Your task to perform on an android device: toggle notification dots Image 0: 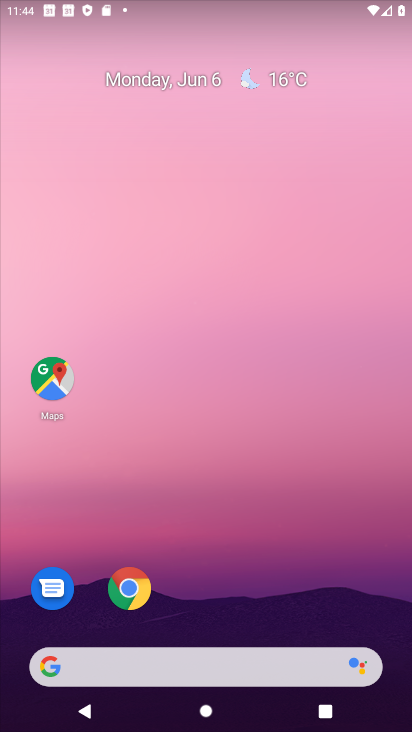
Step 0: drag from (262, 559) to (196, 0)
Your task to perform on an android device: toggle notification dots Image 1: 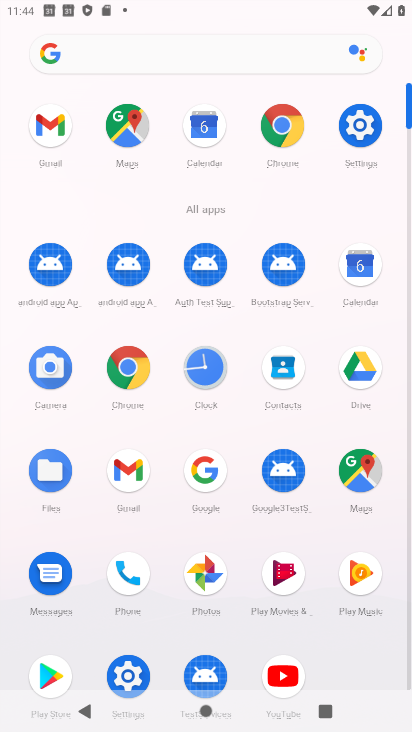
Step 1: click (361, 126)
Your task to perform on an android device: toggle notification dots Image 2: 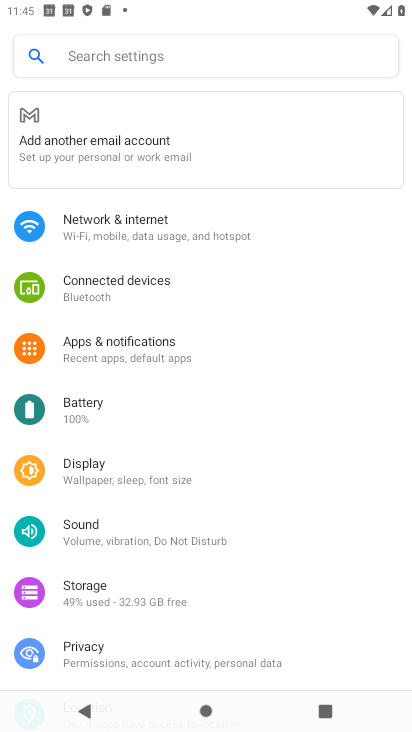
Step 2: click (146, 347)
Your task to perform on an android device: toggle notification dots Image 3: 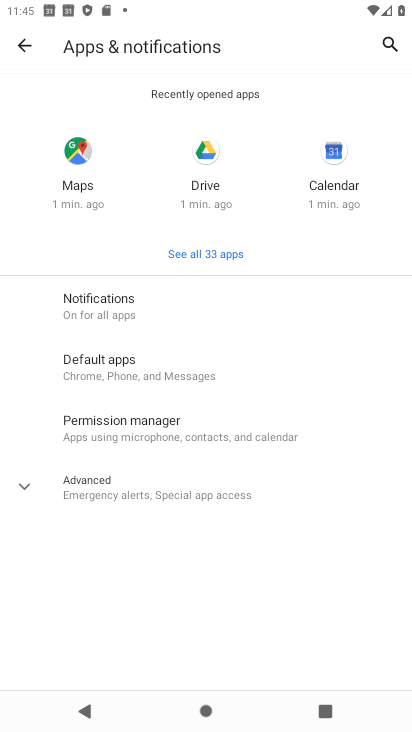
Step 3: click (107, 306)
Your task to perform on an android device: toggle notification dots Image 4: 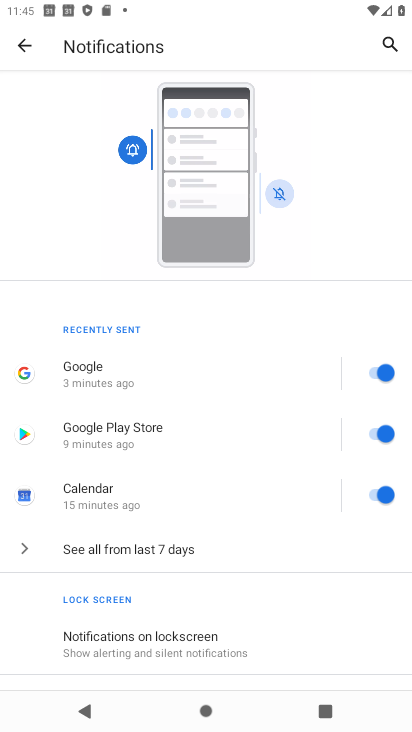
Step 4: drag from (196, 607) to (194, 393)
Your task to perform on an android device: toggle notification dots Image 5: 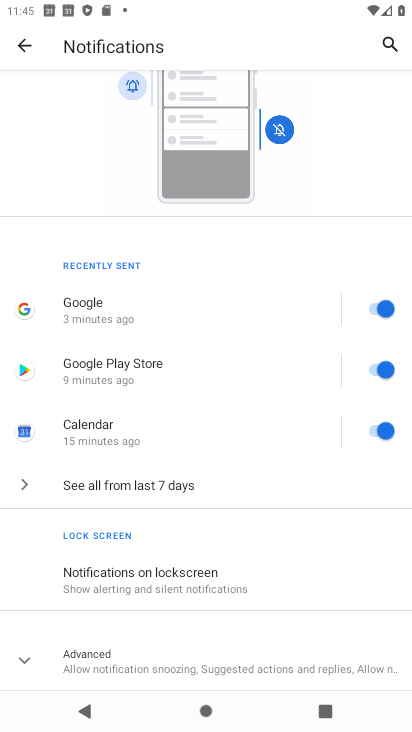
Step 5: click (178, 666)
Your task to perform on an android device: toggle notification dots Image 6: 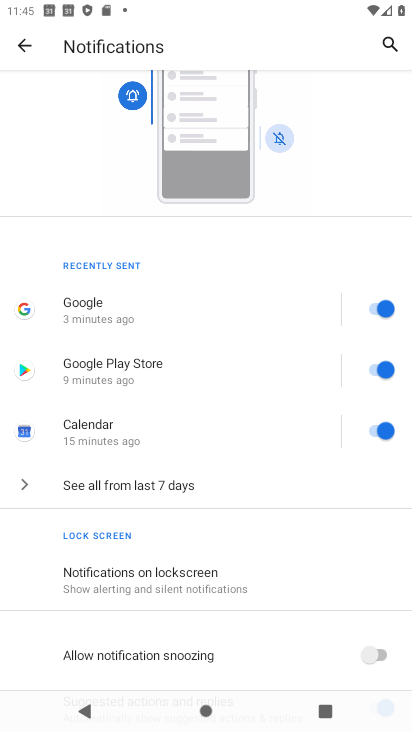
Step 6: drag from (180, 621) to (167, 438)
Your task to perform on an android device: toggle notification dots Image 7: 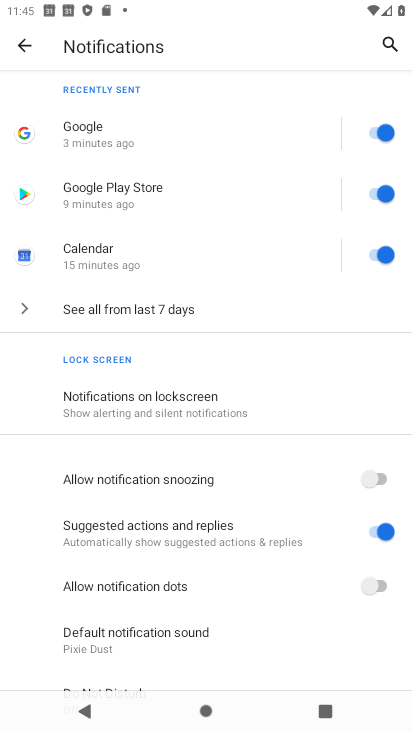
Step 7: click (374, 574)
Your task to perform on an android device: toggle notification dots Image 8: 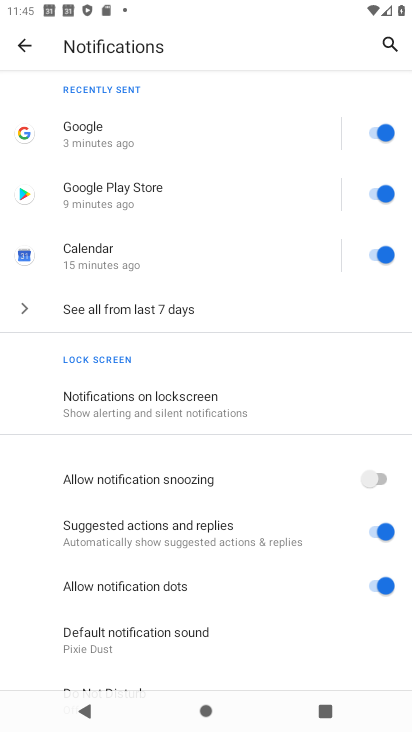
Step 8: task complete